Your task to perform on an android device: change timer sound Image 0: 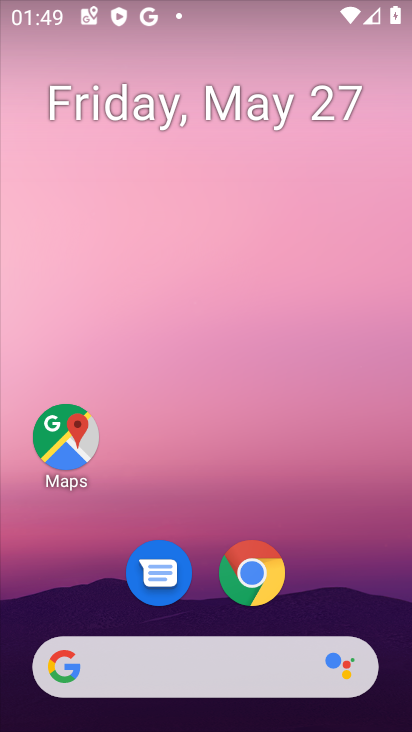
Step 0: click (135, 9)
Your task to perform on an android device: change timer sound Image 1: 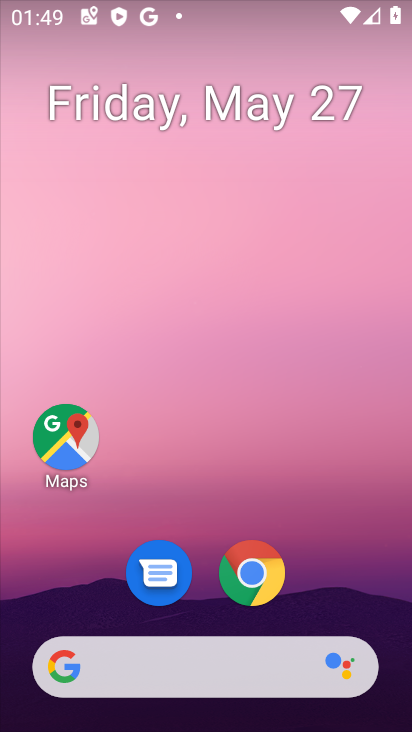
Step 1: drag from (184, 604) to (265, 14)
Your task to perform on an android device: change timer sound Image 2: 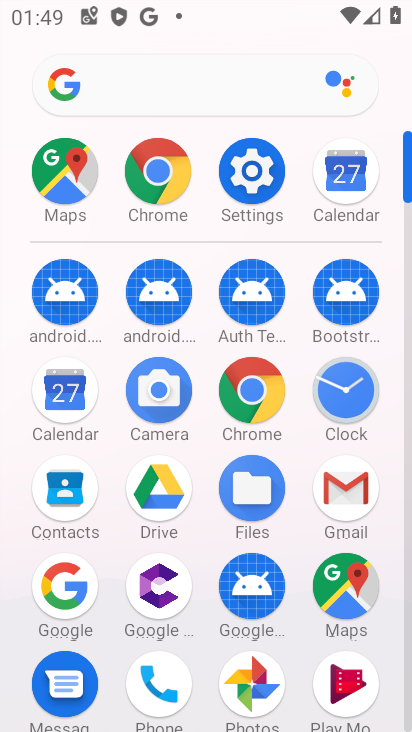
Step 2: click (335, 435)
Your task to perform on an android device: change timer sound Image 3: 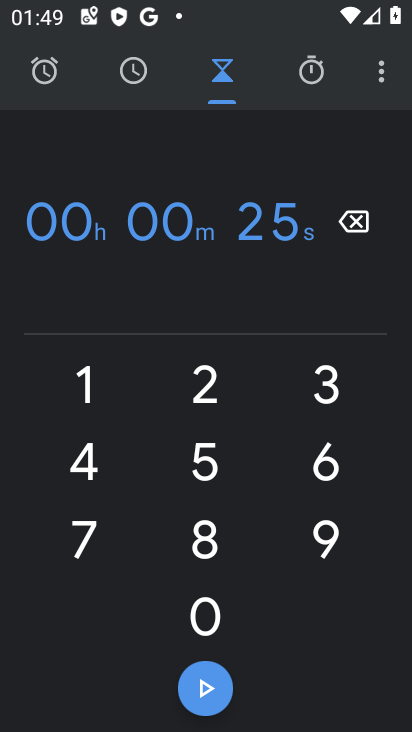
Step 3: click (381, 73)
Your task to perform on an android device: change timer sound Image 4: 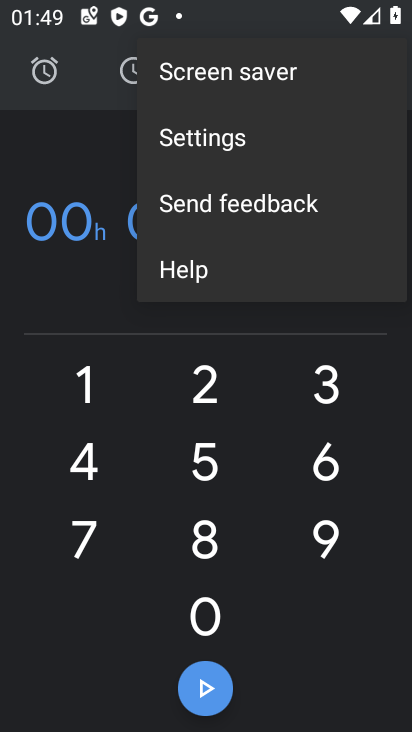
Step 4: click (153, 135)
Your task to perform on an android device: change timer sound Image 5: 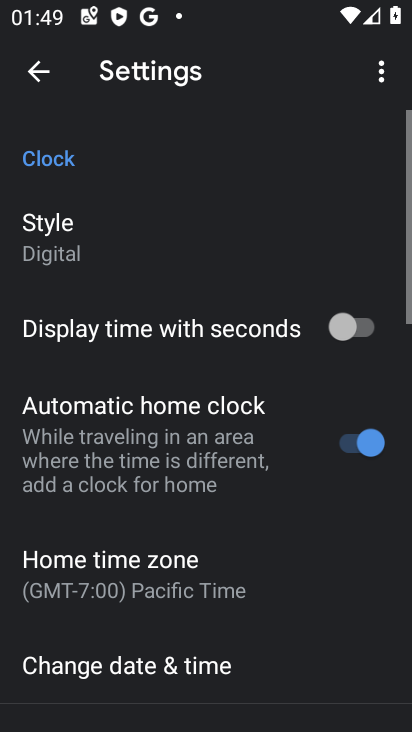
Step 5: drag from (170, 496) to (178, 83)
Your task to perform on an android device: change timer sound Image 6: 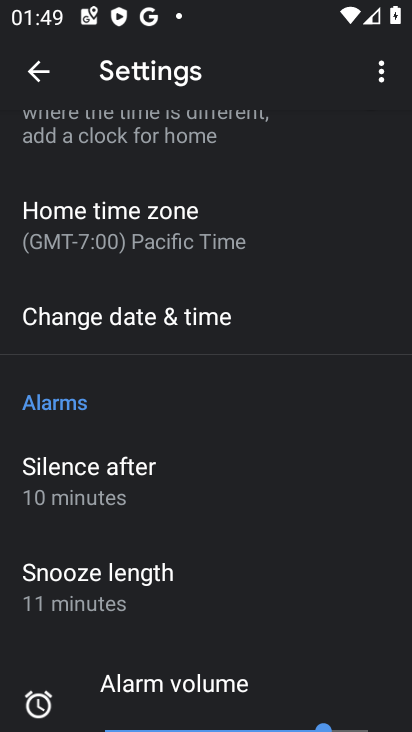
Step 6: drag from (159, 561) to (142, 138)
Your task to perform on an android device: change timer sound Image 7: 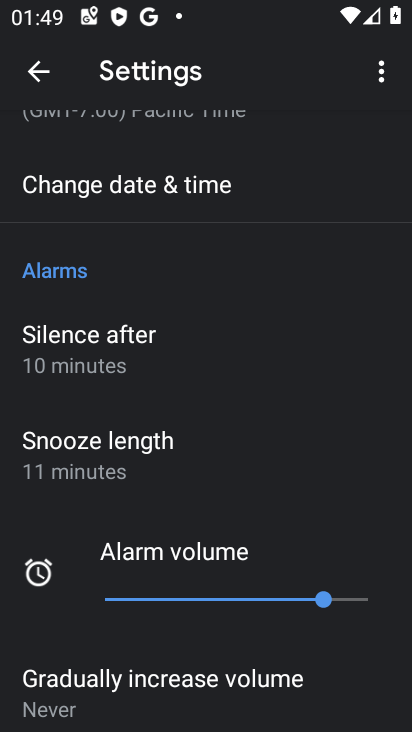
Step 7: drag from (242, 616) to (231, 232)
Your task to perform on an android device: change timer sound Image 8: 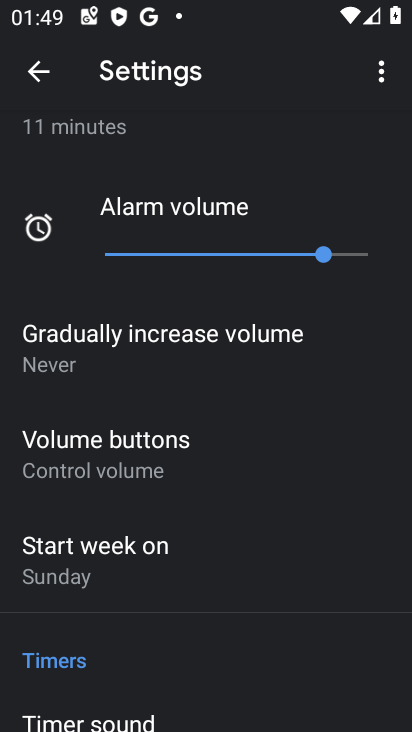
Step 8: click (124, 709)
Your task to perform on an android device: change timer sound Image 9: 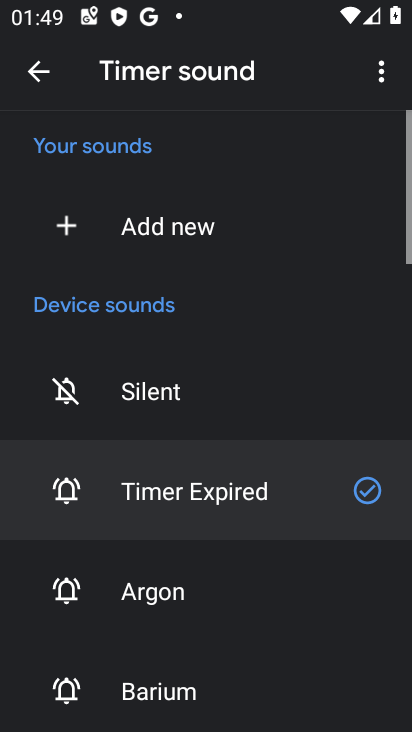
Step 9: click (189, 405)
Your task to perform on an android device: change timer sound Image 10: 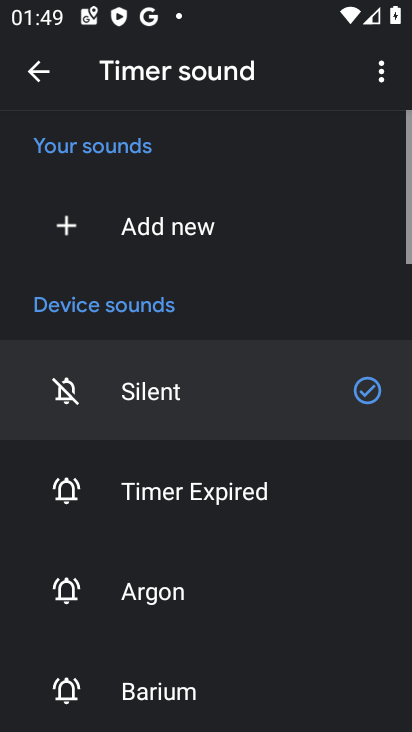
Step 10: task complete